Your task to perform on an android device: Open eBay Image 0: 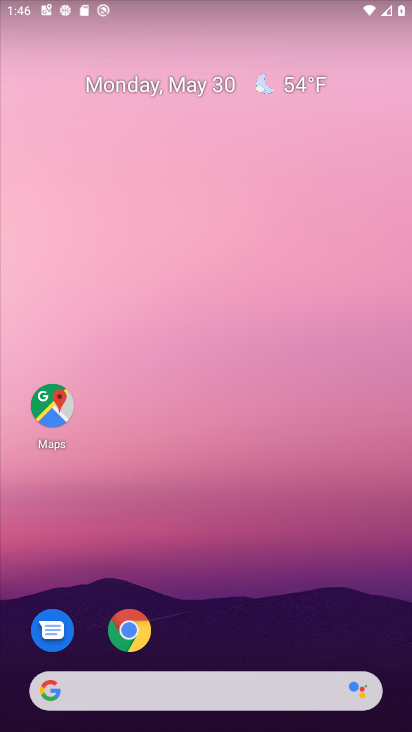
Step 0: press home button
Your task to perform on an android device: Open eBay Image 1: 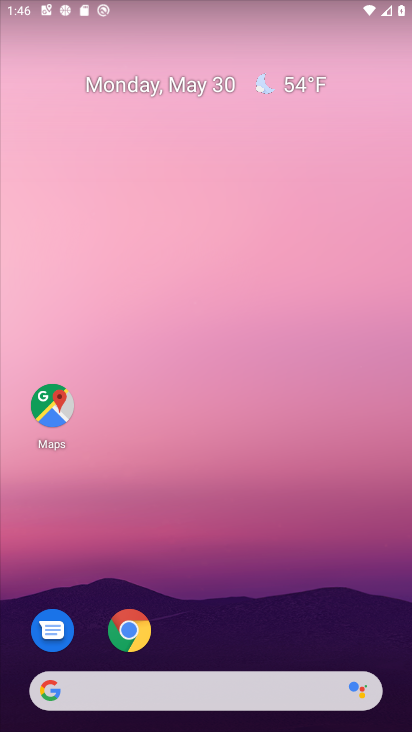
Step 1: click (129, 641)
Your task to perform on an android device: Open eBay Image 2: 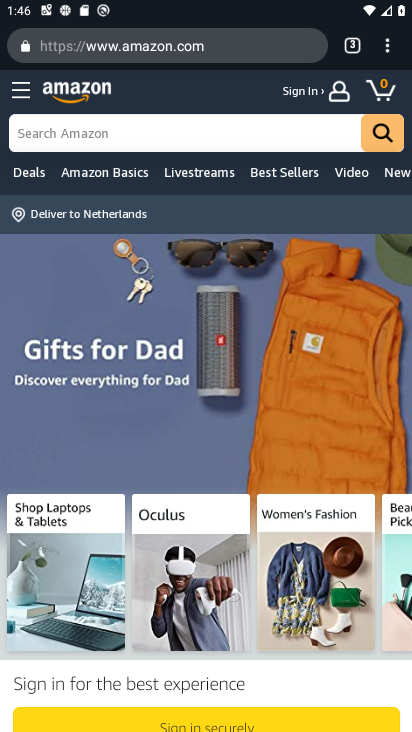
Step 2: drag from (391, 45) to (258, 97)
Your task to perform on an android device: Open eBay Image 3: 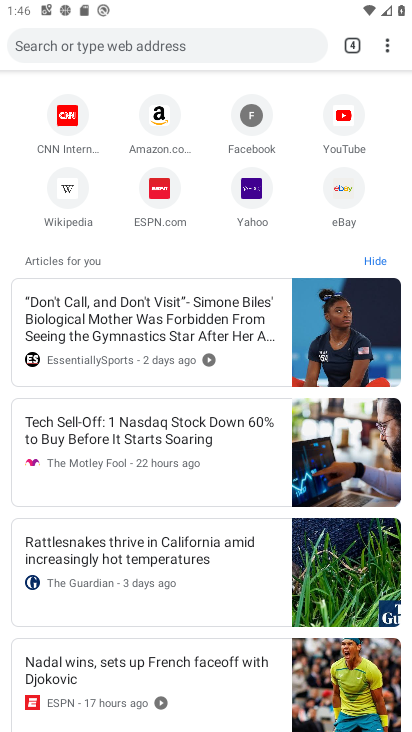
Step 3: click (340, 185)
Your task to perform on an android device: Open eBay Image 4: 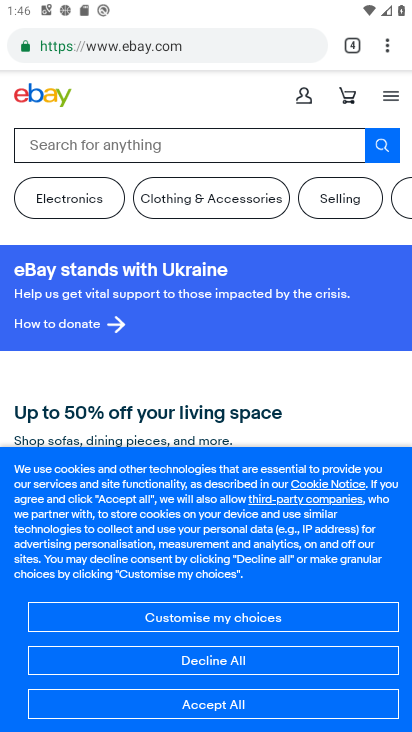
Step 4: task complete